Your task to perform on an android device: turn notification dots off Image 0: 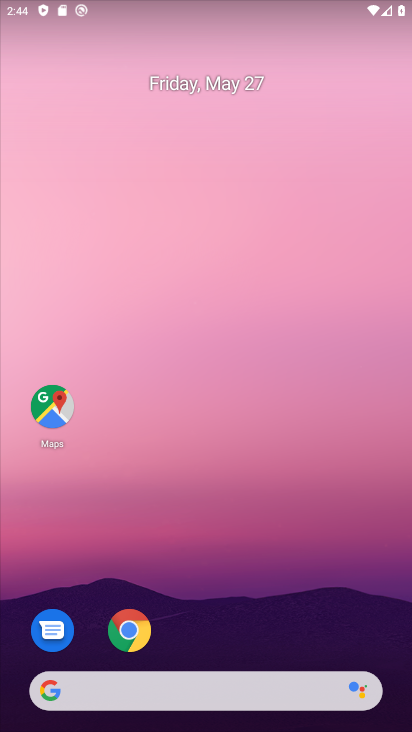
Step 0: drag from (191, 652) to (156, 4)
Your task to perform on an android device: turn notification dots off Image 1: 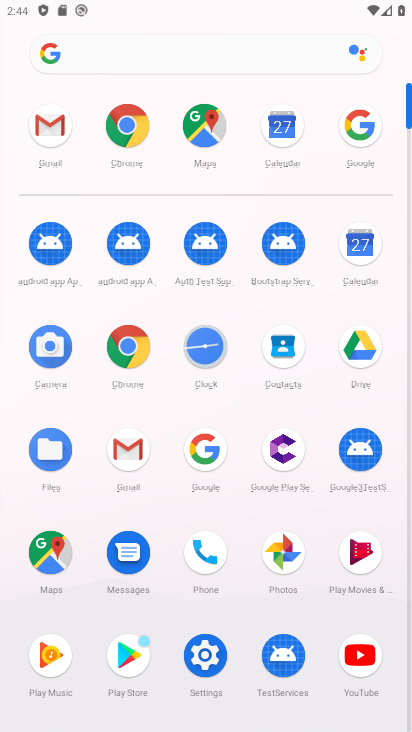
Step 1: click (214, 655)
Your task to perform on an android device: turn notification dots off Image 2: 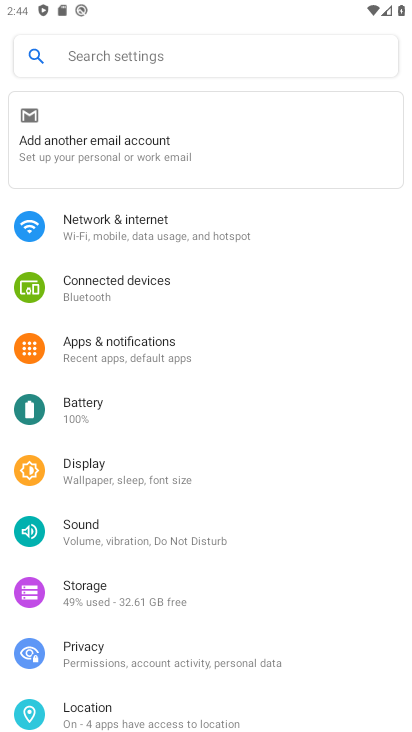
Step 2: drag from (114, 264) to (100, 126)
Your task to perform on an android device: turn notification dots off Image 3: 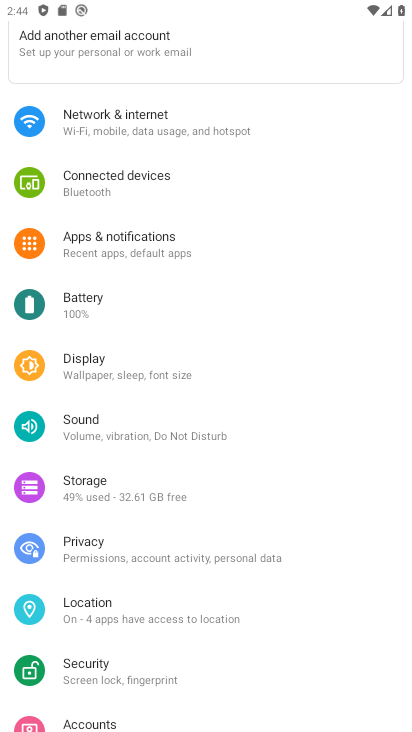
Step 3: click (118, 243)
Your task to perform on an android device: turn notification dots off Image 4: 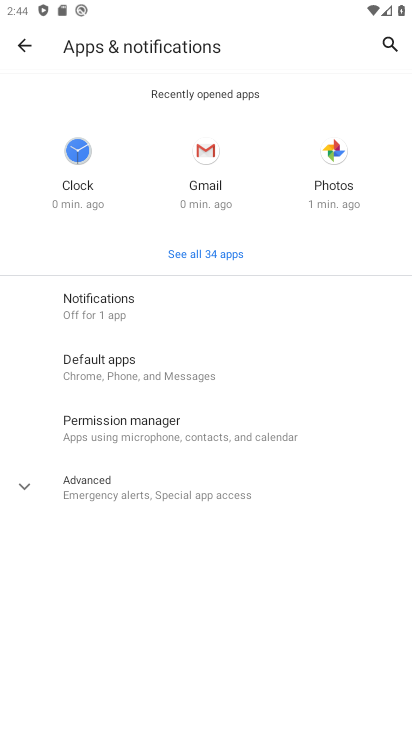
Step 4: click (126, 309)
Your task to perform on an android device: turn notification dots off Image 5: 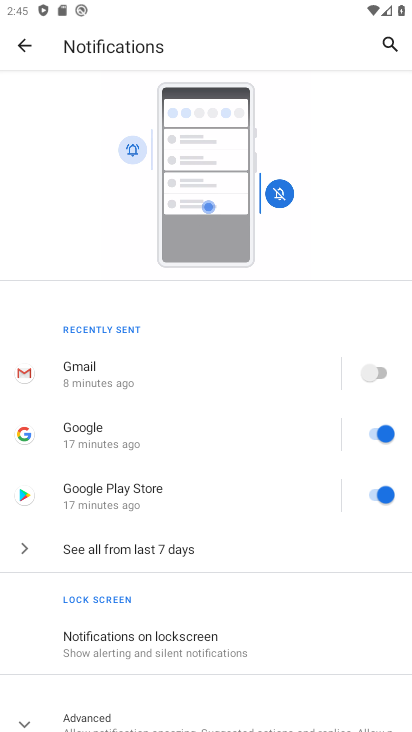
Step 5: drag from (185, 622) to (141, 214)
Your task to perform on an android device: turn notification dots off Image 6: 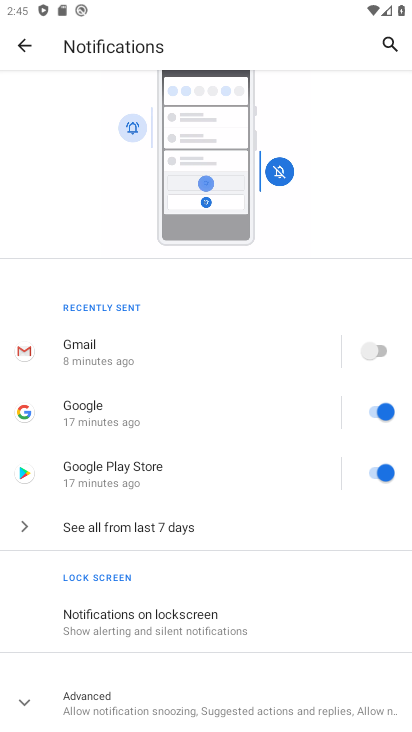
Step 6: click (136, 711)
Your task to perform on an android device: turn notification dots off Image 7: 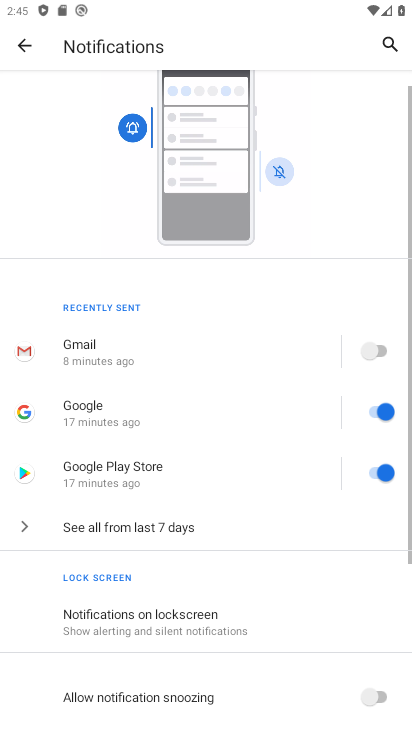
Step 7: drag from (171, 649) to (134, 142)
Your task to perform on an android device: turn notification dots off Image 8: 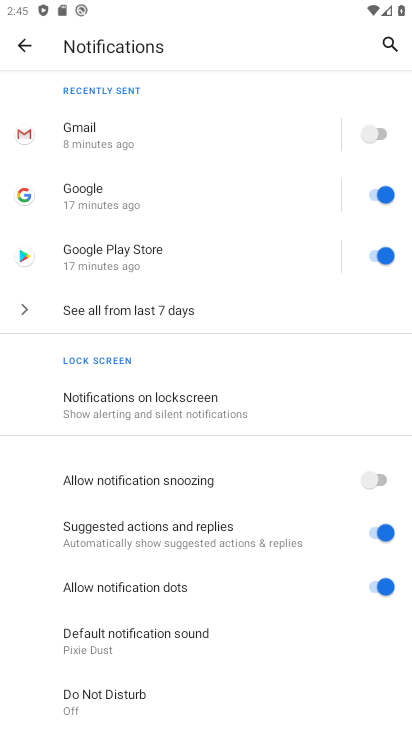
Step 8: click (379, 582)
Your task to perform on an android device: turn notification dots off Image 9: 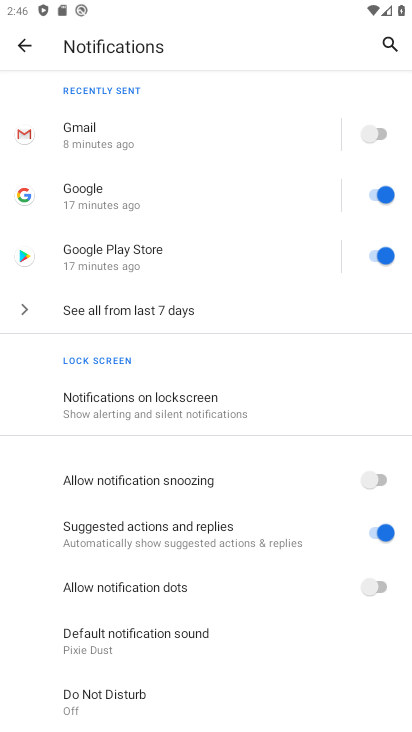
Step 9: task complete